Your task to perform on an android device: Open Yahoo.com Image 0: 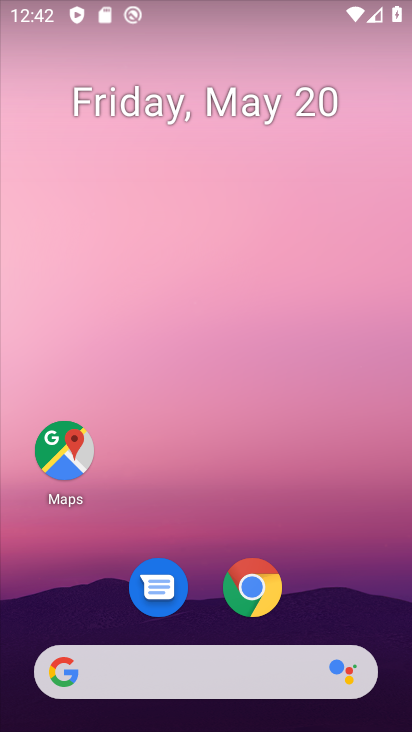
Step 0: click (254, 589)
Your task to perform on an android device: Open Yahoo.com Image 1: 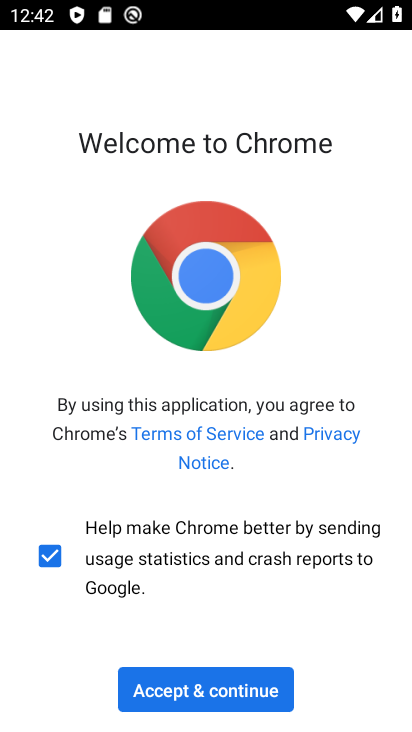
Step 1: click (207, 687)
Your task to perform on an android device: Open Yahoo.com Image 2: 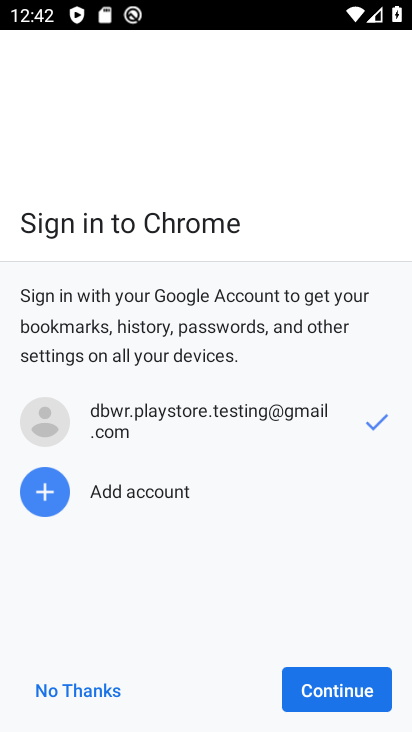
Step 2: click (329, 681)
Your task to perform on an android device: Open Yahoo.com Image 3: 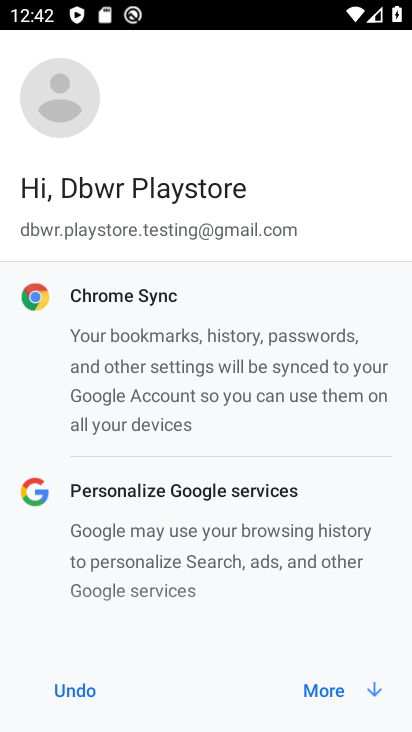
Step 3: click (368, 690)
Your task to perform on an android device: Open Yahoo.com Image 4: 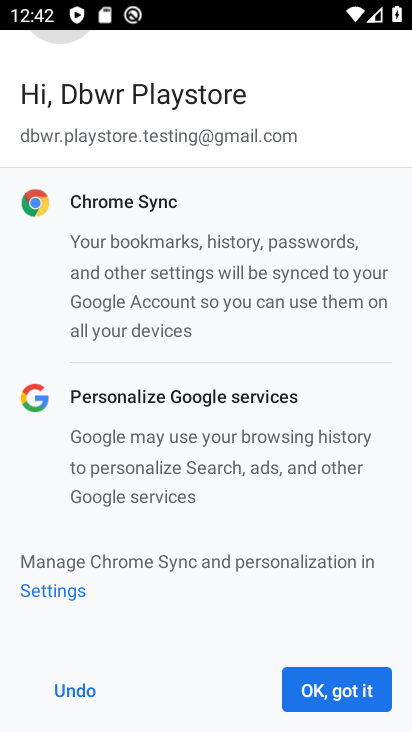
Step 4: click (318, 691)
Your task to perform on an android device: Open Yahoo.com Image 5: 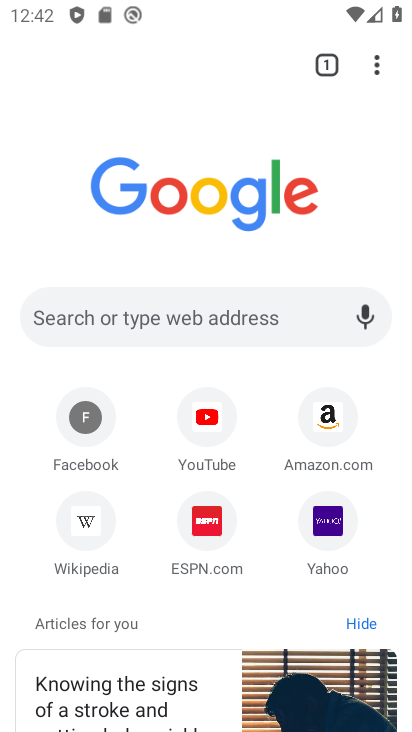
Step 5: click (314, 528)
Your task to perform on an android device: Open Yahoo.com Image 6: 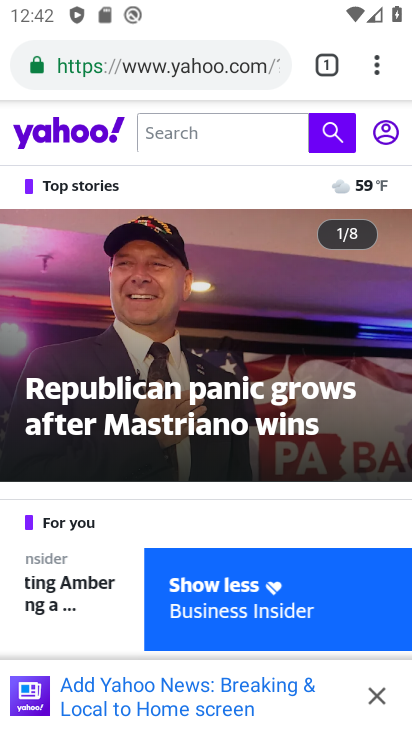
Step 6: task complete